Your task to perform on an android device: clear history in the chrome app Image 0: 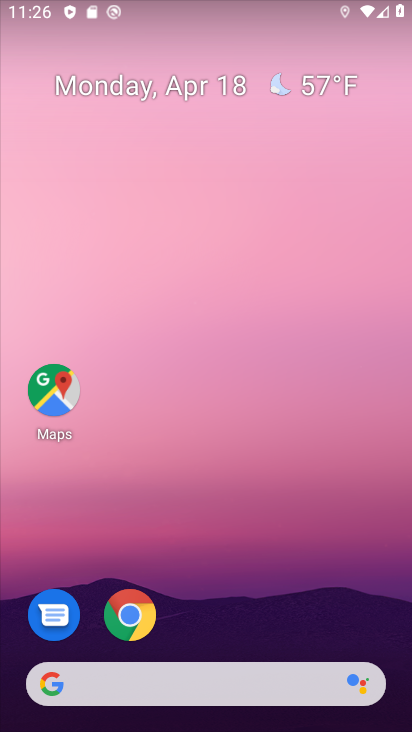
Step 0: drag from (205, 621) to (227, 228)
Your task to perform on an android device: clear history in the chrome app Image 1: 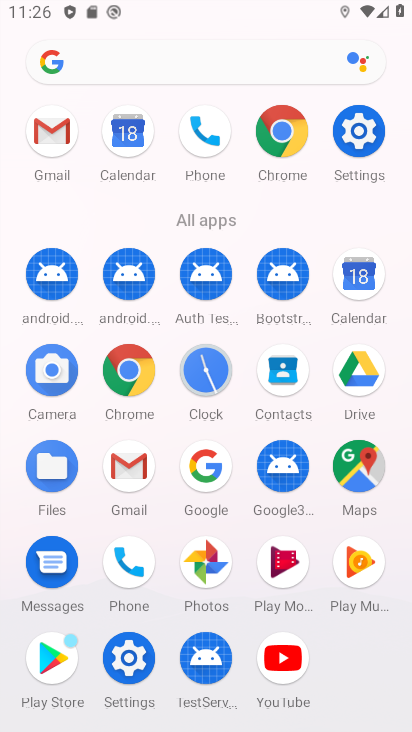
Step 1: click (265, 144)
Your task to perform on an android device: clear history in the chrome app Image 2: 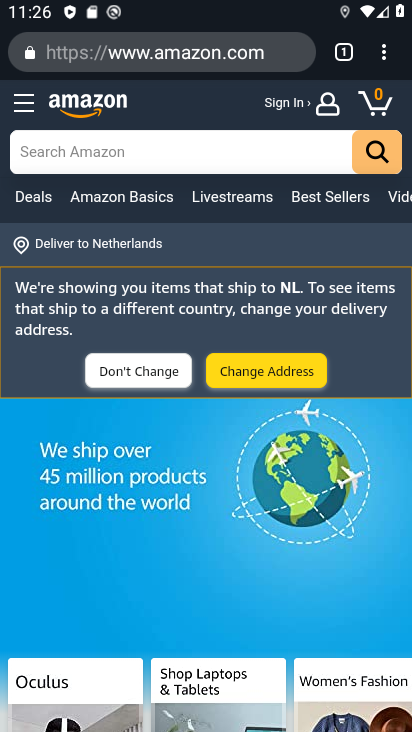
Step 2: click (377, 46)
Your task to perform on an android device: clear history in the chrome app Image 3: 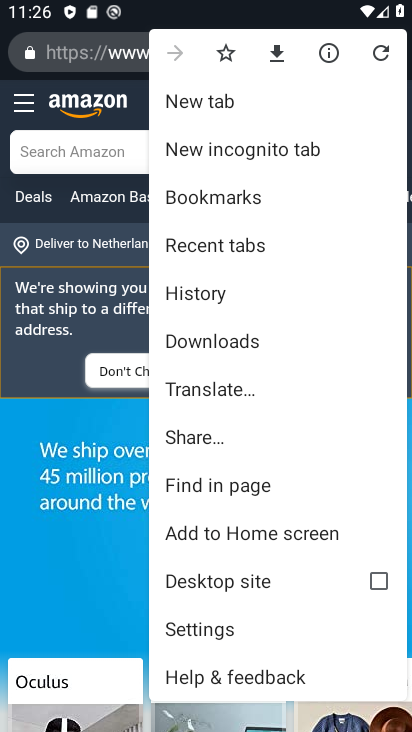
Step 3: click (192, 294)
Your task to perform on an android device: clear history in the chrome app Image 4: 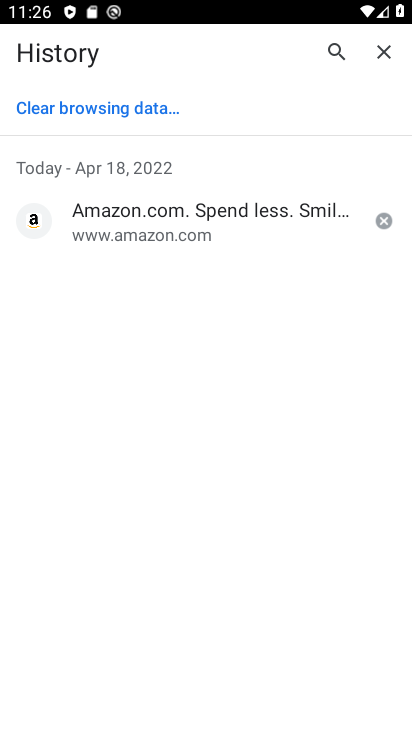
Step 4: click (96, 110)
Your task to perform on an android device: clear history in the chrome app Image 5: 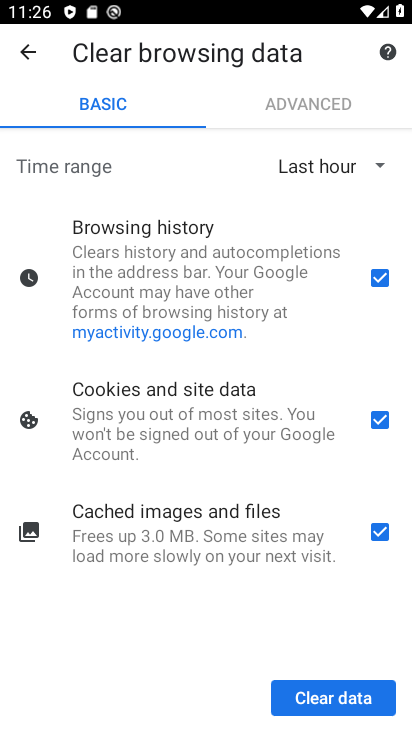
Step 5: click (323, 693)
Your task to perform on an android device: clear history in the chrome app Image 6: 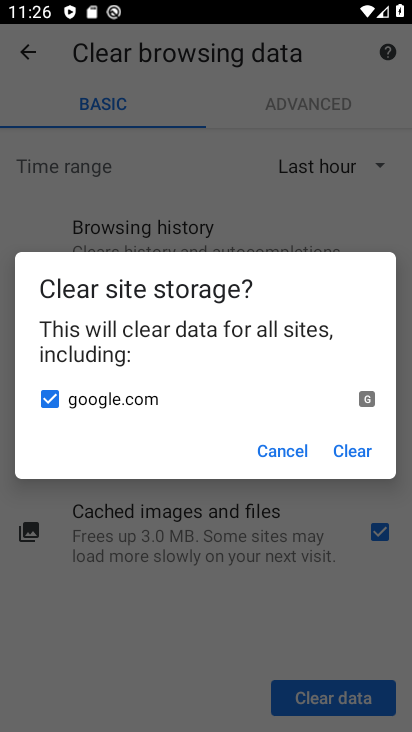
Step 6: click (349, 451)
Your task to perform on an android device: clear history in the chrome app Image 7: 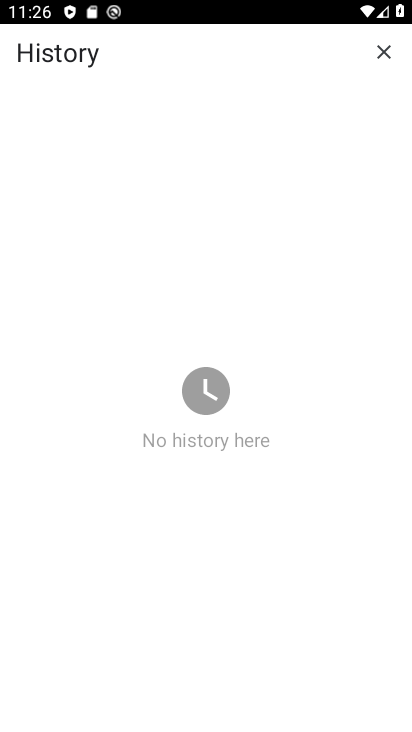
Step 7: task complete